Your task to perform on an android device: Open Wikipedia Image 0: 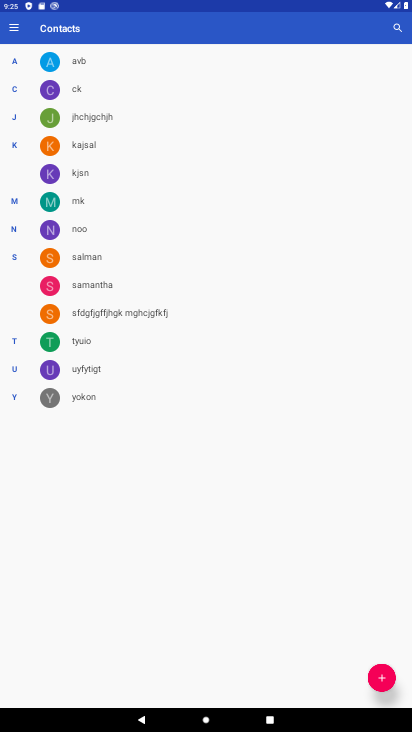
Step 0: press home button
Your task to perform on an android device: Open Wikipedia Image 1: 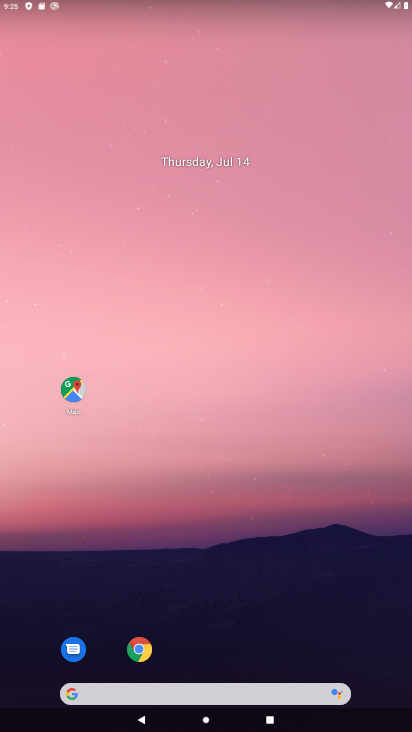
Step 1: click (153, 651)
Your task to perform on an android device: Open Wikipedia Image 2: 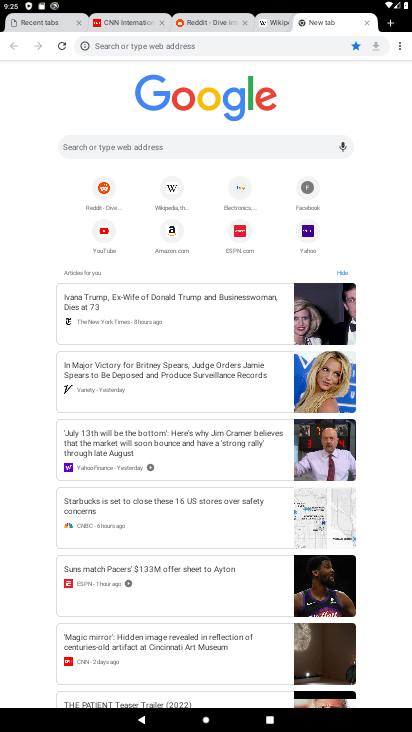
Step 2: click (168, 193)
Your task to perform on an android device: Open Wikipedia Image 3: 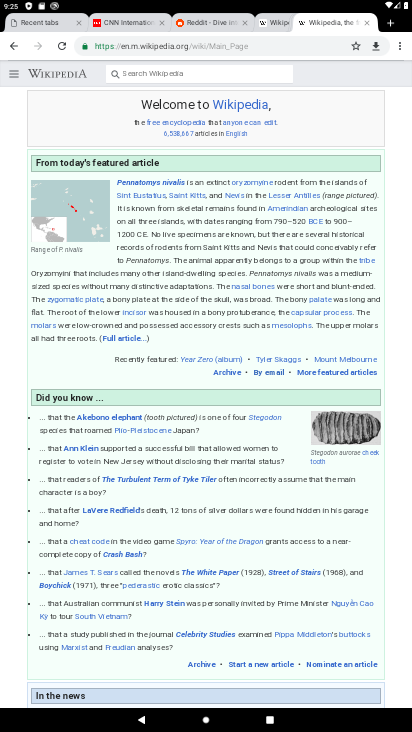
Step 3: task complete